Your task to perform on an android device: turn on the 12-hour format for clock Image 0: 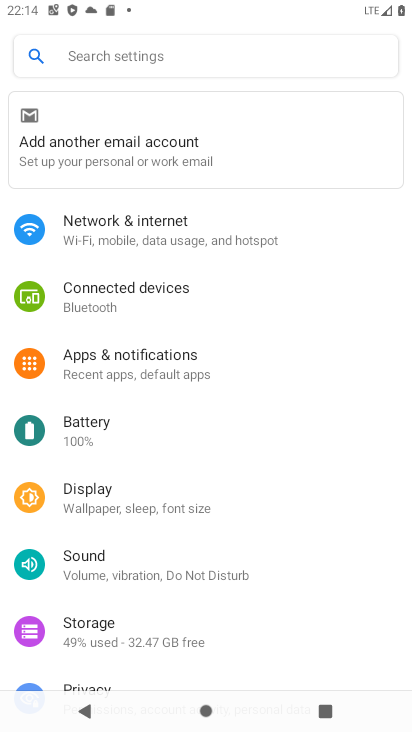
Step 0: press home button
Your task to perform on an android device: turn on the 12-hour format for clock Image 1: 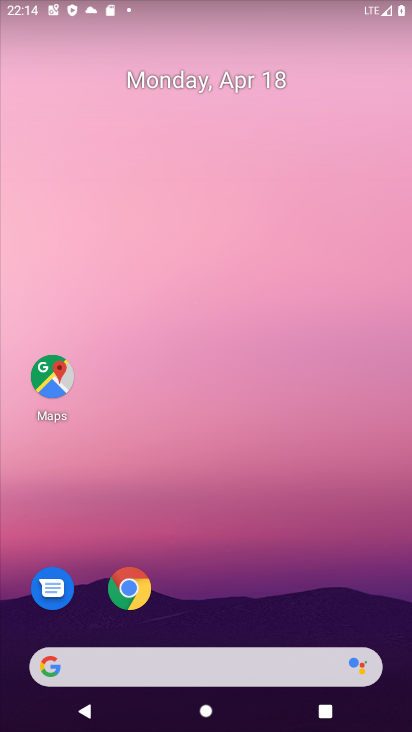
Step 1: drag from (366, 600) to (282, 117)
Your task to perform on an android device: turn on the 12-hour format for clock Image 2: 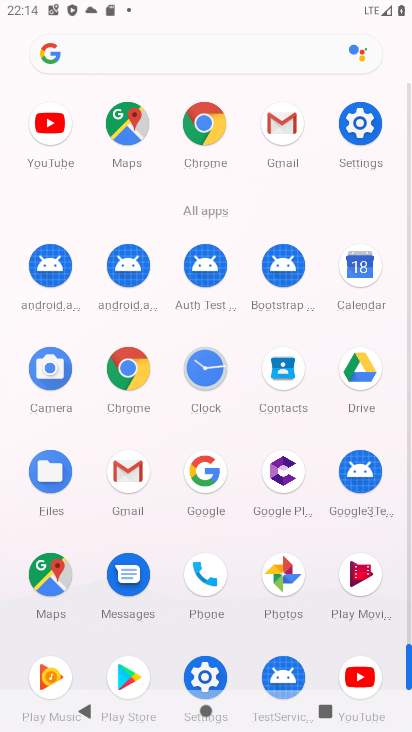
Step 2: click (201, 368)
Your task to perform on an android device: turn on the 12-hour format for clock Image 3: 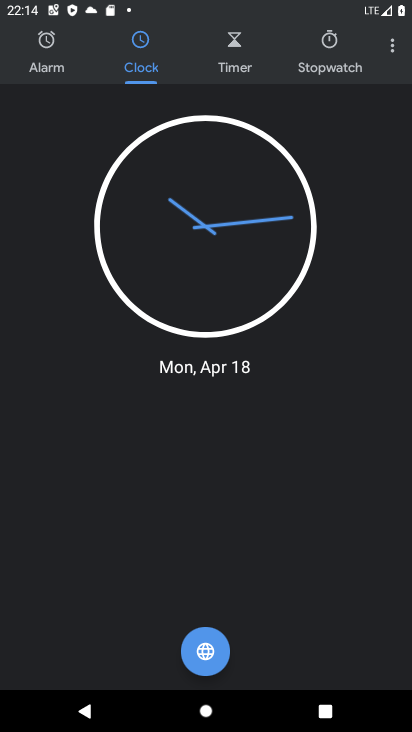
Step 3: click (393, 47)
Your task to perform on an android device: turn on the 12-hour format for clock Image 4: 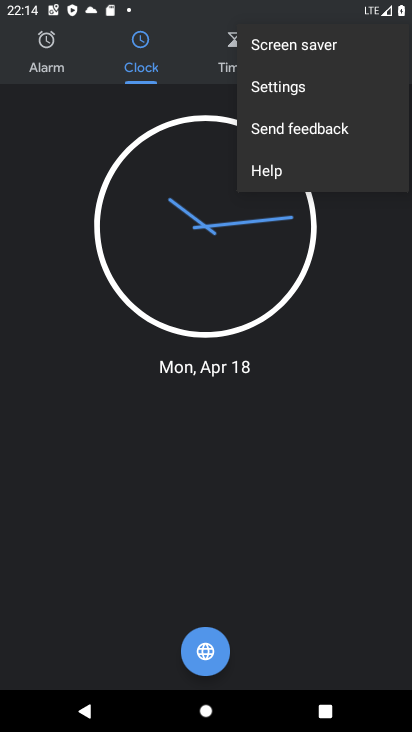
Step 4: click (279, 86)
Your task to perform on an android device: turn on the 12-hour format for clock Image 5: 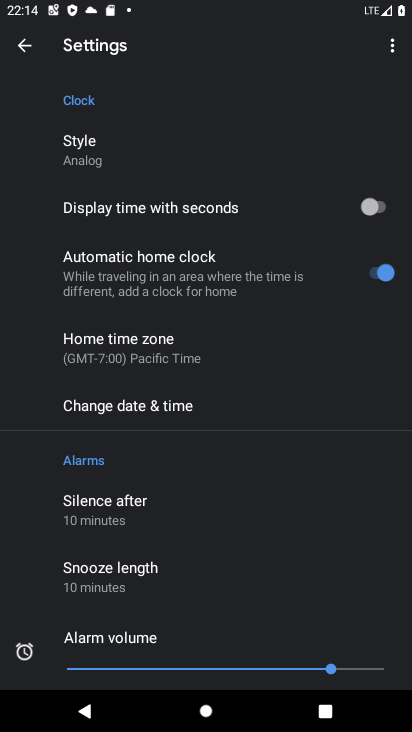
Step 5: click (127, 415)
Your task to perform on an android device: turn on the 12-hour format for clock Image 6: 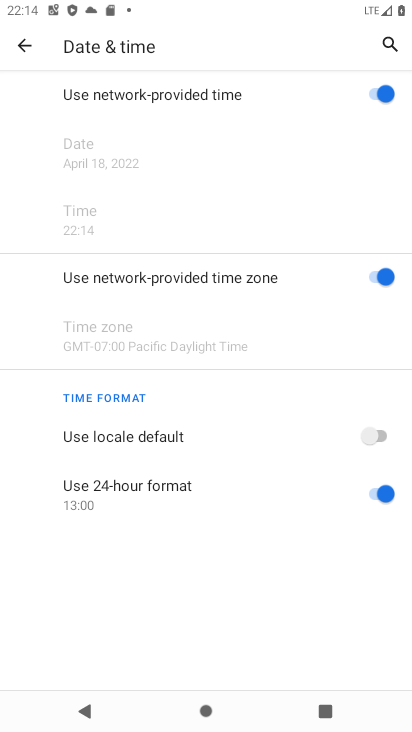
Step 6: click (380, 433)
Your task to perform on an android device: turn on the 12-hour format for clock Image 7: 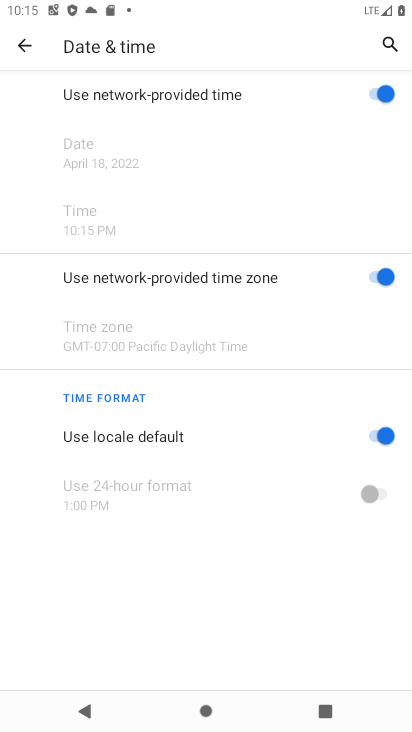
Step 7: task complete